Your task to perform on an android device: Open Google Chrome and open the bookmarks view Image 0: 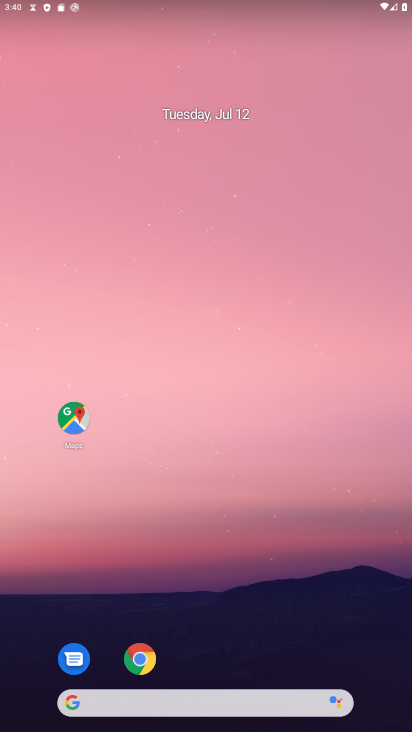
Step 0: press home button
Your task to perform on an android device: Open Google Chrome and open the bookmarks view Image 1: 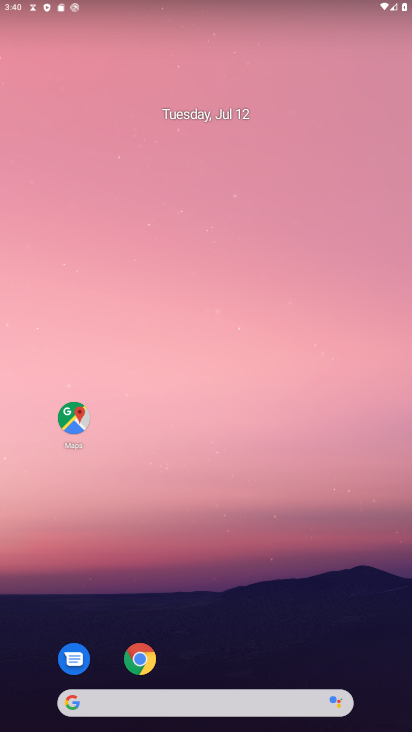
Step 1: drag from (250, 620) to (254, 46)
Your task to perform on an android device: Open Google Chrome and open the bookmarks view Image 2: 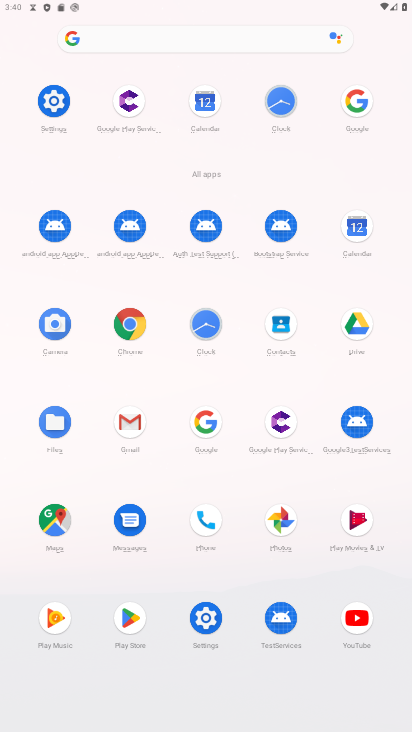
Step 2: click (130, 328)
Your task to perform on an android device: Open Google Chrome and open the bookmarks view Image 3: 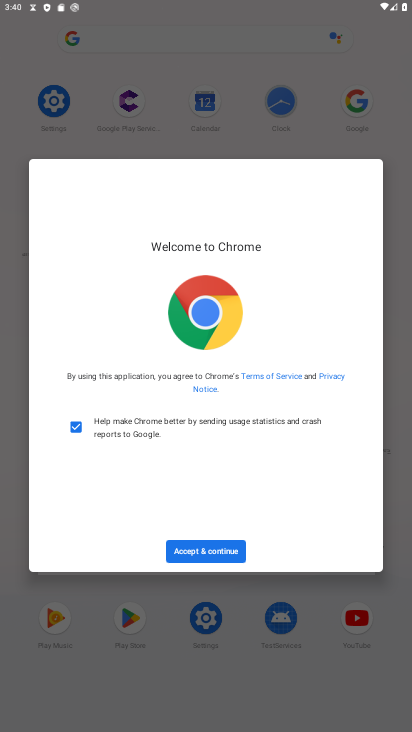
Step 3: click (230, 556)
Your task to perform on an android device: Open Google Chrome and open the bookmarks view Image 4: 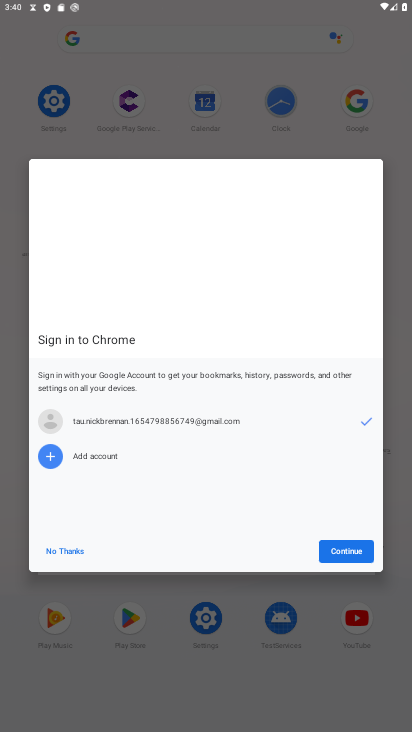
Step 4: click (340, 554)
Your task to perform on an android device: Open Google Chrome and open the bookmarks view Image 5: 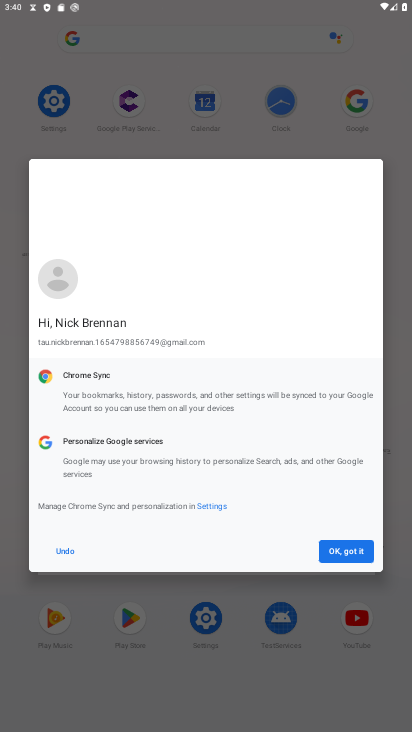
Step 5: click (340, 554)
Your task to perform on an android device: Open Google Chrome and open the bookmarks view Image 6: 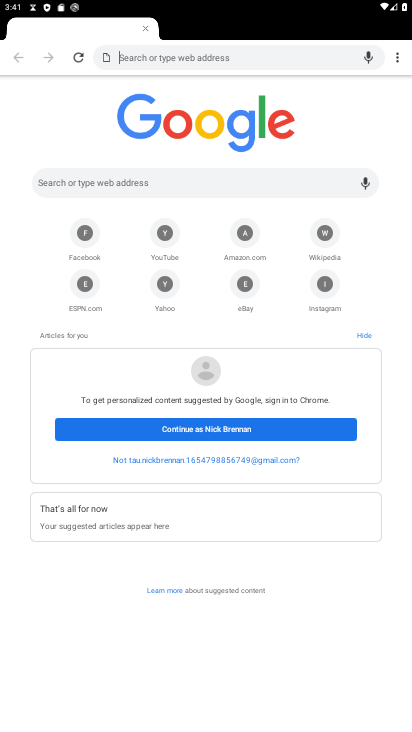
Step 6: task complete